Your task to perform on an android device: turn on translation in the chrome app Image 0: 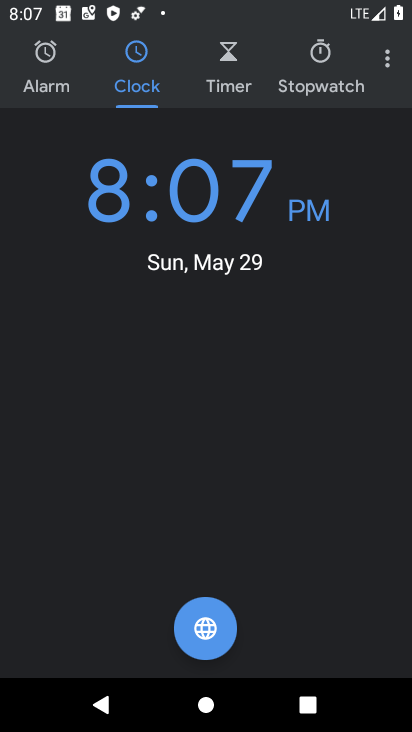
Step 0: press home button
Your task to perform on an android device: turn on translation in the chrome app Image 1: 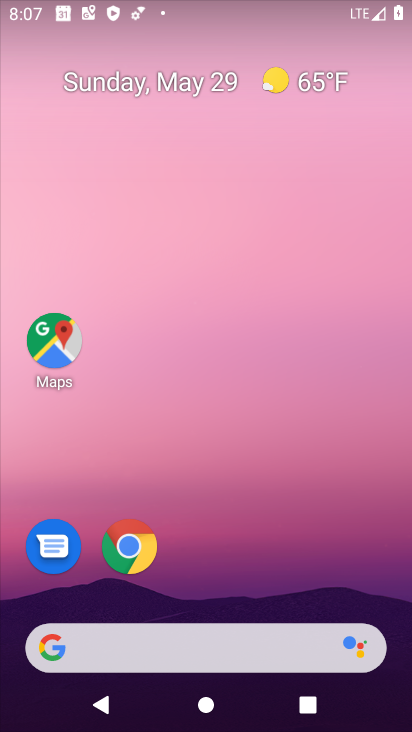
Step 1: drag from (172, 608) to (220, 149)
Your task to perform on an android device: turn on translation in the chrome app Image 2: 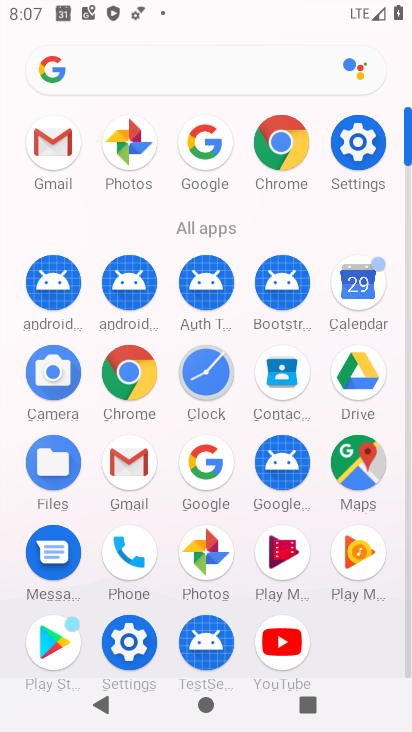
Step 2: click (278, 155)
Your task to perform on an android device: turn on translation in the chrome app Image 3: 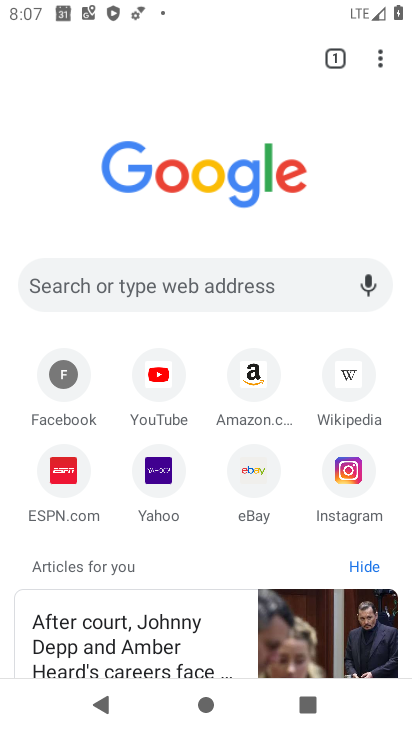
Step 3: click (377, 56)
Your task to perform on an android device: turn on translation in the chrome app Image 4: 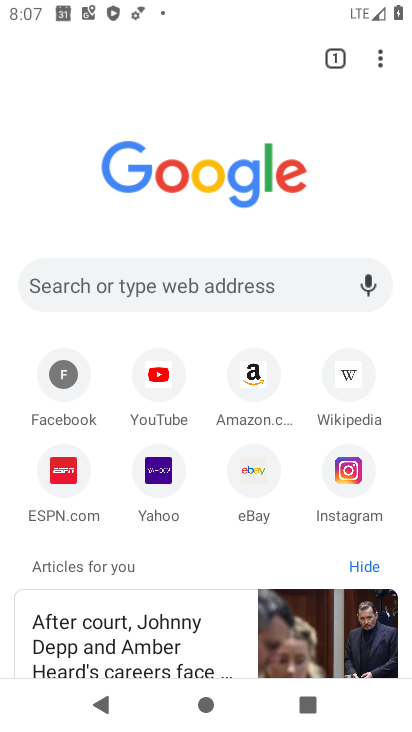
Step 4: click (383, 54)
Your task to perform on an android device: turn on translation in the chrome app Image 5: 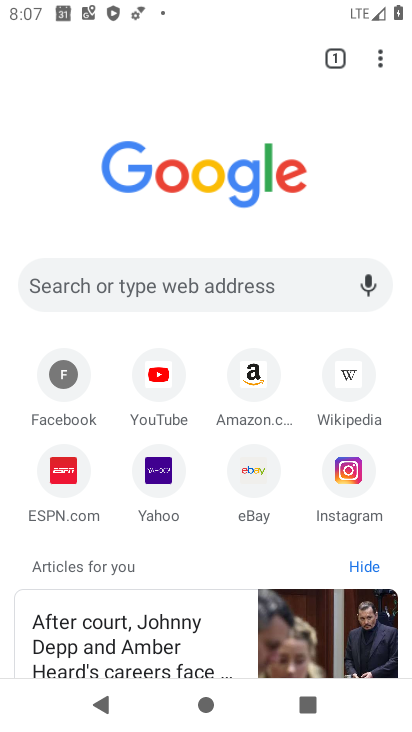
Step 5: click (383, 54)
Your task to perform on an android device: turn on translation in the chrome app Image 6: 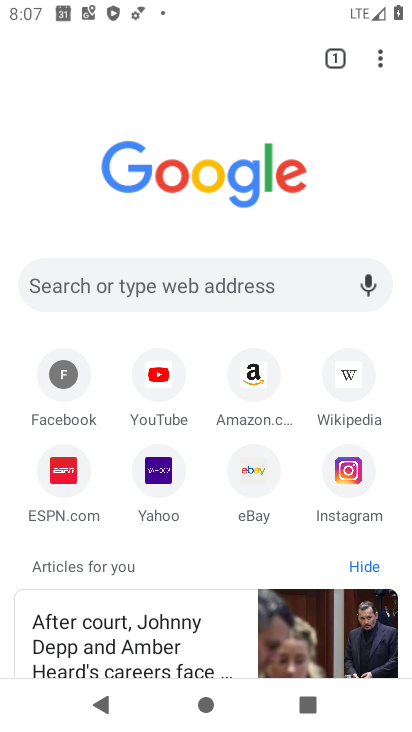
Step 6: click (375, 63)
Your task to perform on an android device: turn on translation in the chrome app Image 7: 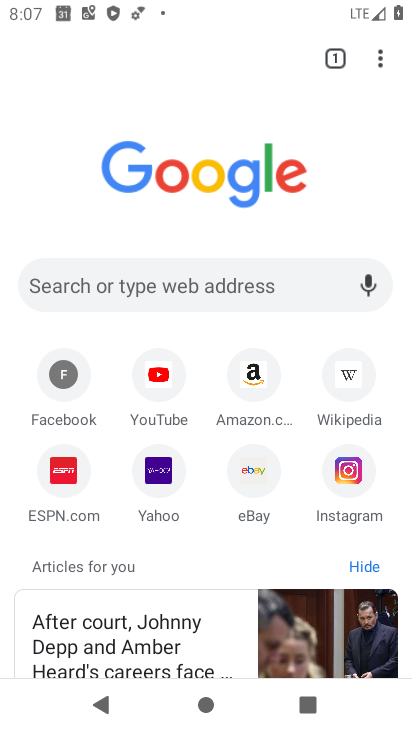
Step 7: click (378, 70)
Your task to perform on an android device: turn on translation in the chrome app Image 8: 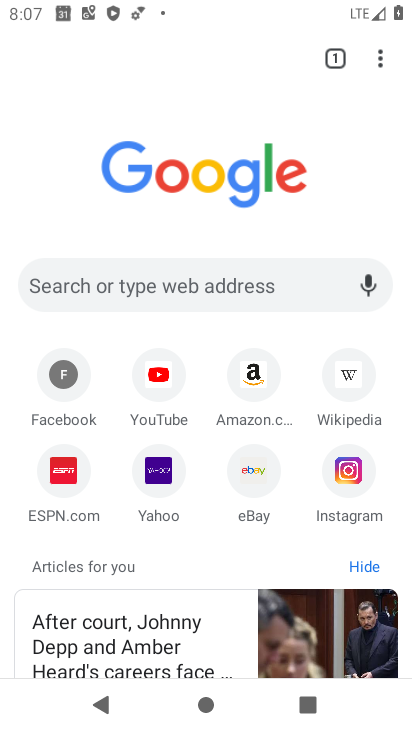
Step 8: click (383, 61)
Your task to perform on an android device: turn on translation in the chrome app Image 9: 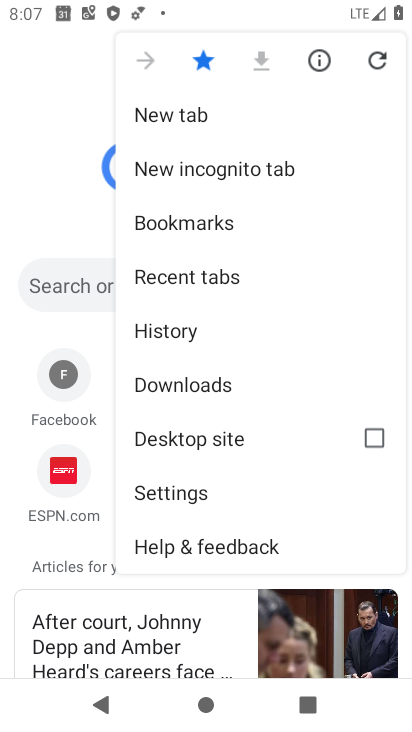
Step 9: click (181, 497)
Your task to perform on an android device: turn on translation in the chrome app Image 10: 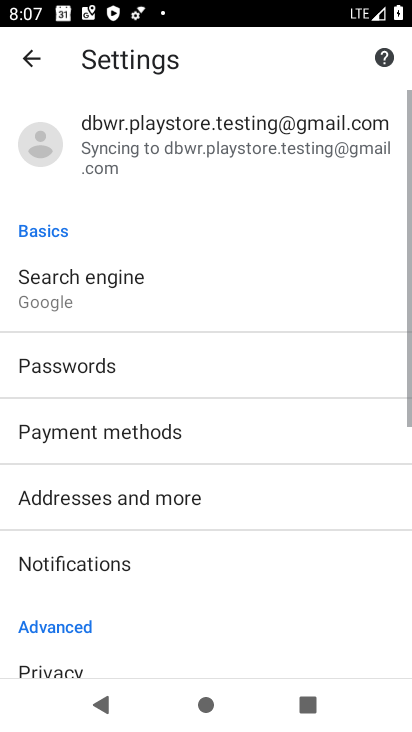
Step 10: drag from (172, 628) to (184, 278)
Your task to perform on an android device: turn on translation in the chrome app Image 11: 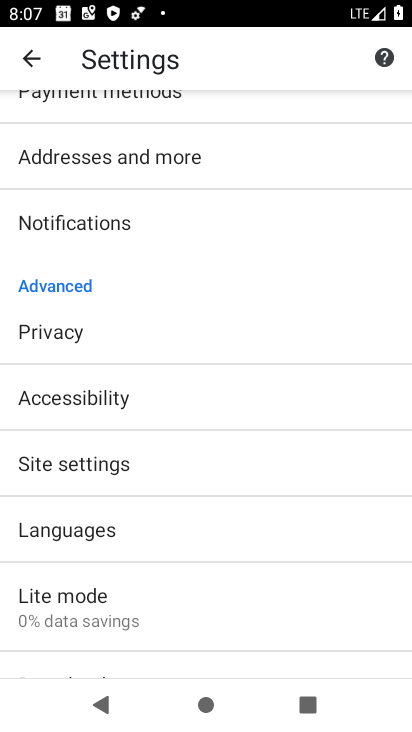
Step 11: click (125, 535)
Your task to perform on an android device: turn on translation in the chrome app Image 12: 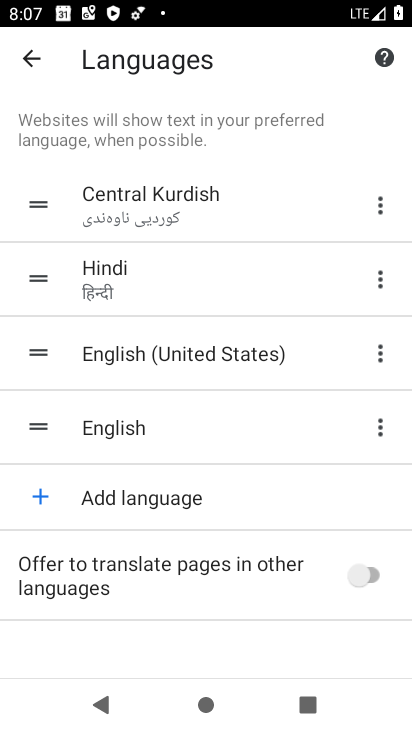
Step 12: click (359, 571)
Your task to perform on an android device: turn on translation in the chrome app Image 13: 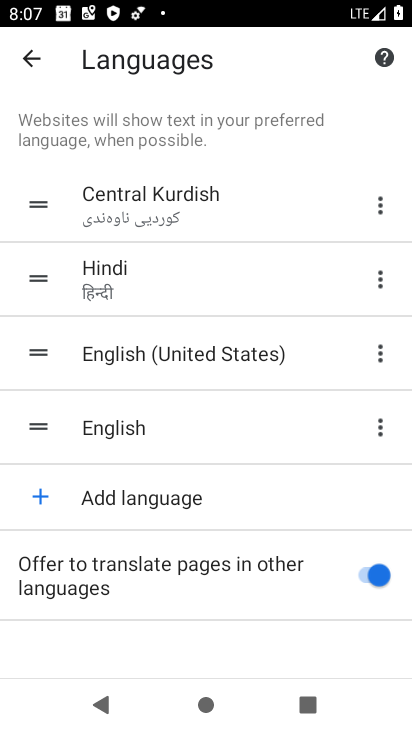
Step 13: task complete